Your task to perform on an android device: Open Chrome and go to the settings page Image 0: 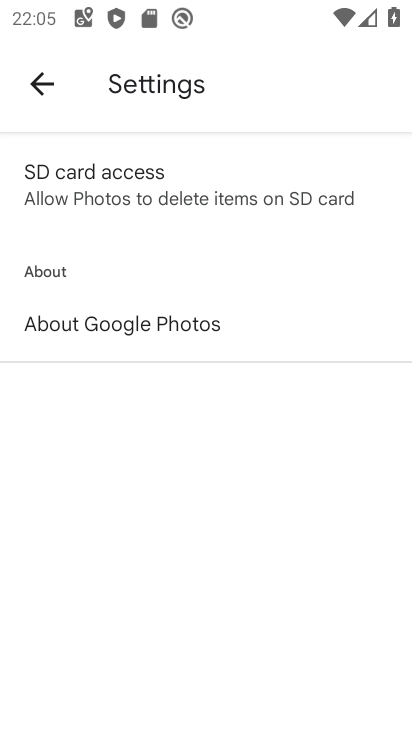
Step 0: press home button
Your task to perform on an android device: Open Chrome and go to the settings page Image 1: 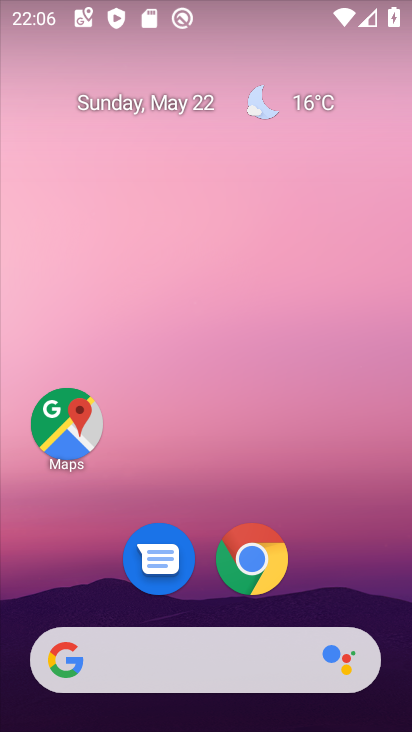
Step 1: drag from (208, 681) to (239, 242)
Your task to perform on an android device: Open Chrome and go to the settings page Image 2: 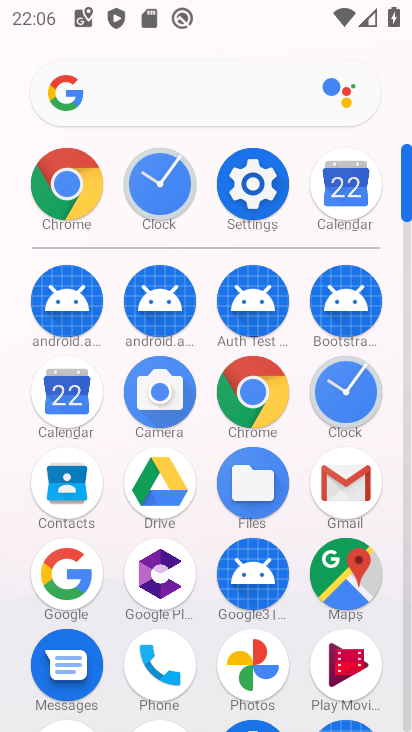
Step 2: click (59, 183)
Your task to perform on an android device: Open Chrome and go to the settings page Image 3: 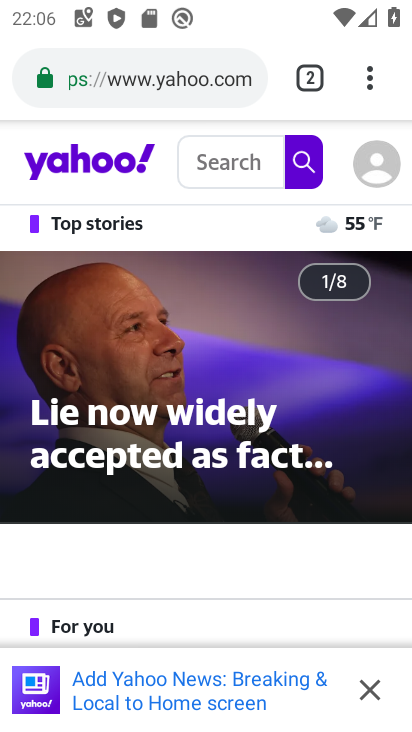
Step 3: click (361, 94)
Your task to perform on an android device: Open Chrome and go to the settings page Image 4: 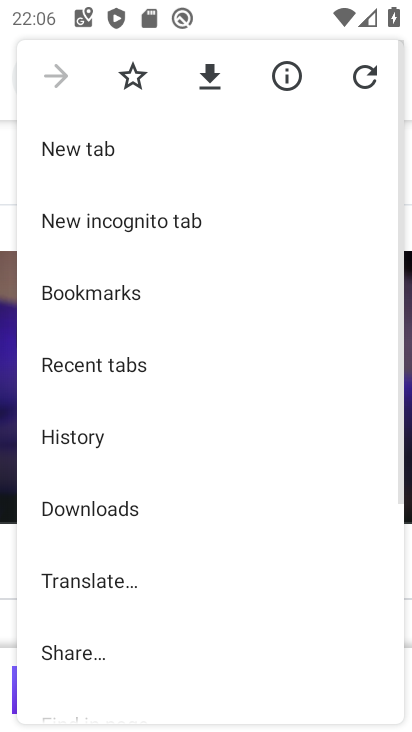
Step 4: drag from (138, 600) to (113, 262)
Your task to perform on an android device: Open Chrome and go to the settings page Image 5: 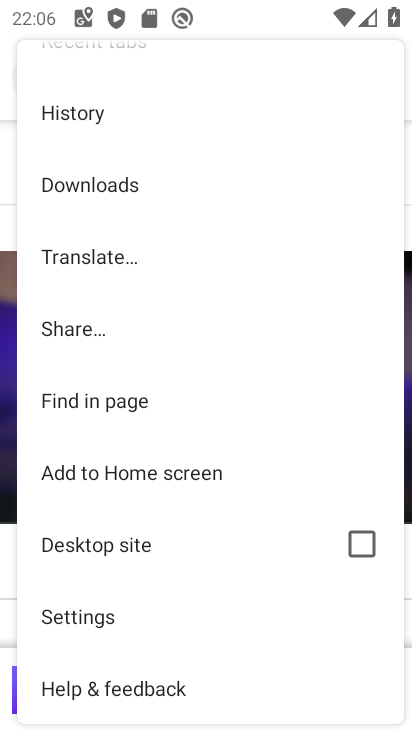
Step 5: click (132, 605)
Your task to perform on an android device: Open Chrome and go to the settings page Image 6: 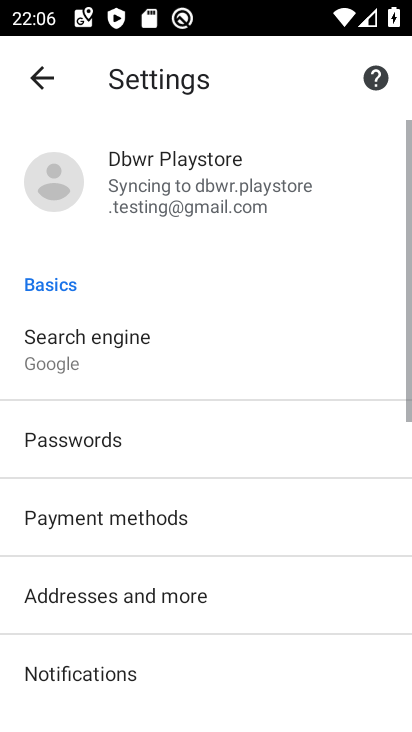
Step 6: task complete